Your task to perform on an android device: star an email in the gmail app Image 0: 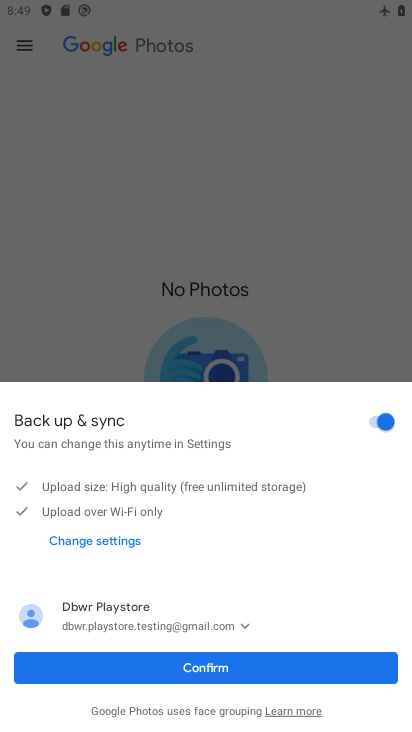
Step 0: press home button
Your task to perform on an android device: star an email in the gmail app Image 1: 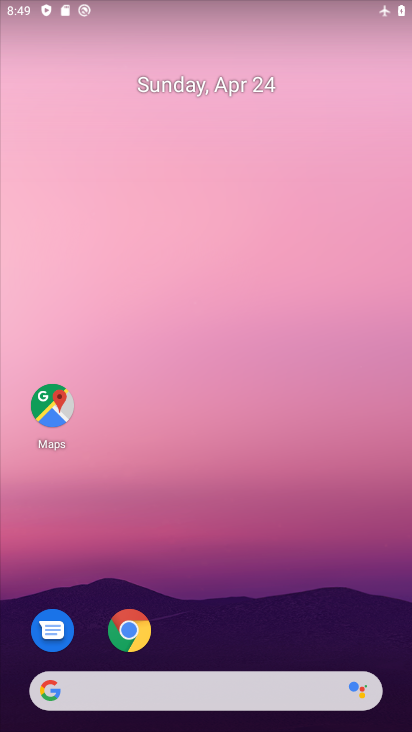
Step 1: drag from (179, 551) to (234, 185)
Your task to perform on an android device: star an email in the gmail app Image 2: 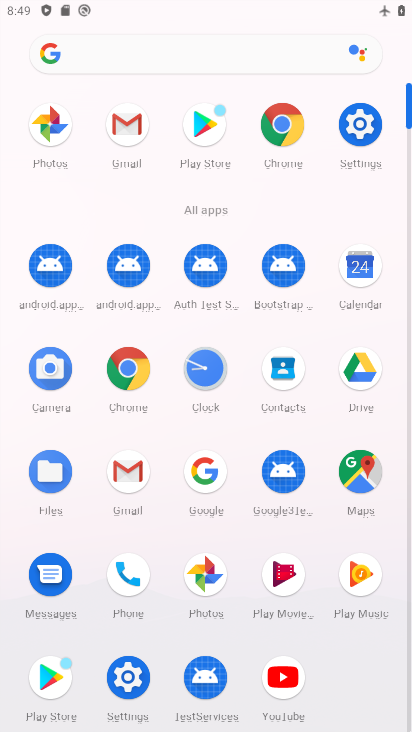
Step 2: click (124, 471)
Your task to perform on an android device: star an email in the gmail app Image 3: 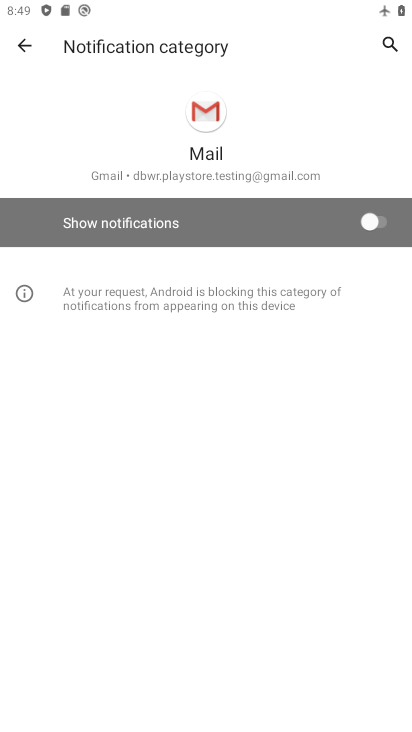
Step 3: click (24, 48)
Your task to perform on an android device: star an email in the gmail app Image 4: 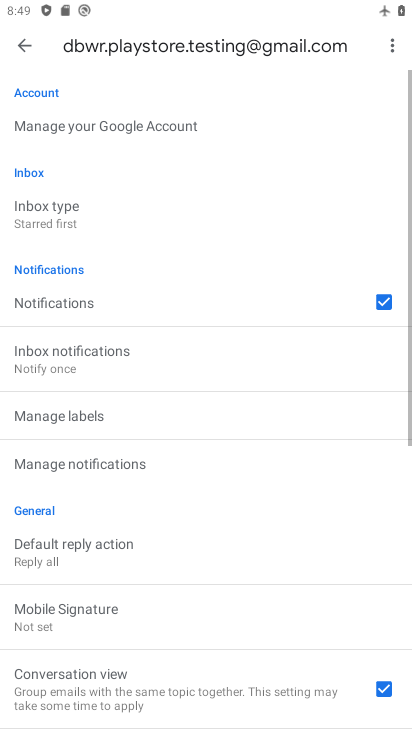
Step 4: click (24, 48)
Your task to perform on an android device: star an email in the gmail app Image 5: 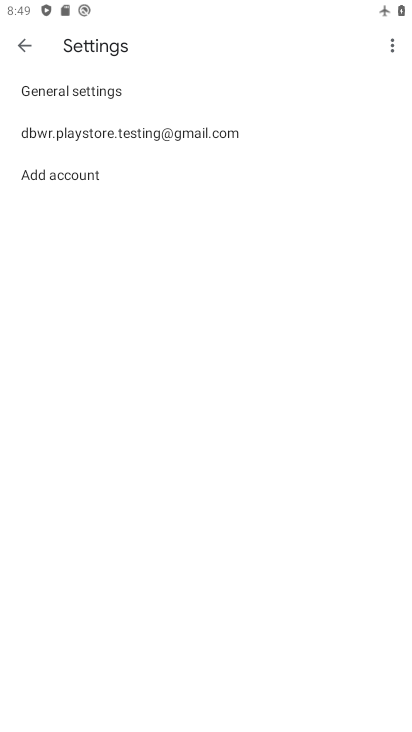
Step 5: click (24, 48)
Your task to perform on an android device: star an email in the gmail app Image 6: 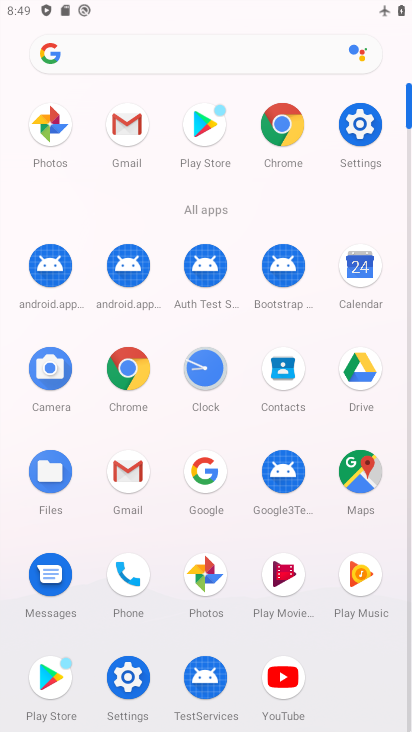
Step 6: click (128, 126)
Your task to perform on an android device: star an email in the gmail app Image 7: 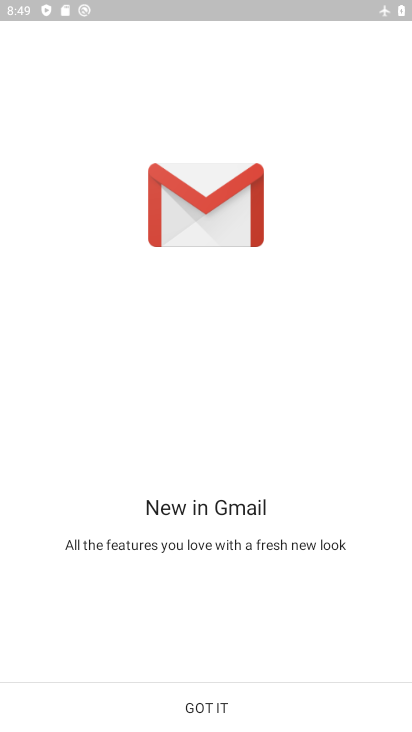
Step 7: click (223, 708)
Your task to perform on an android device: star an email in the gmail app Image 8: 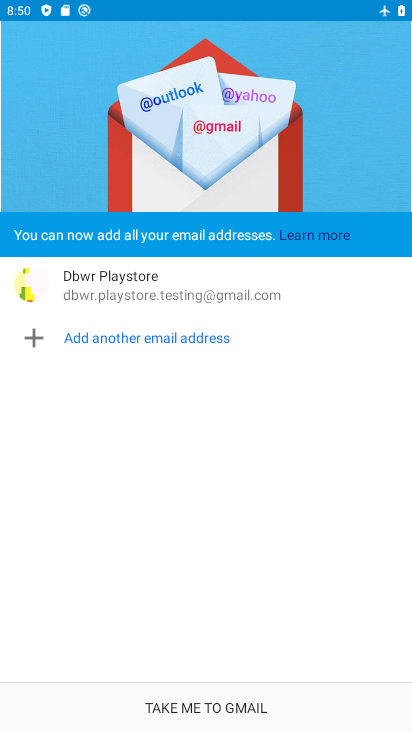
Step 8: click (208, 705)
Your task to perform on an android device: star an email in the gmail app Image 9: 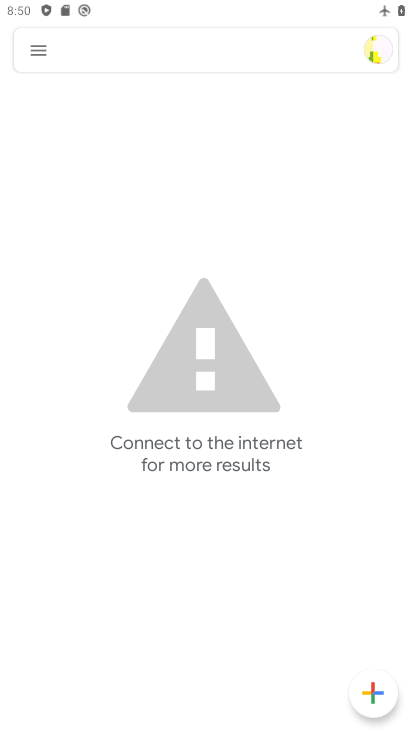
Step 9: click (41, 51)
Your task to perform on an android device: star an email in the gmail app Image 10: 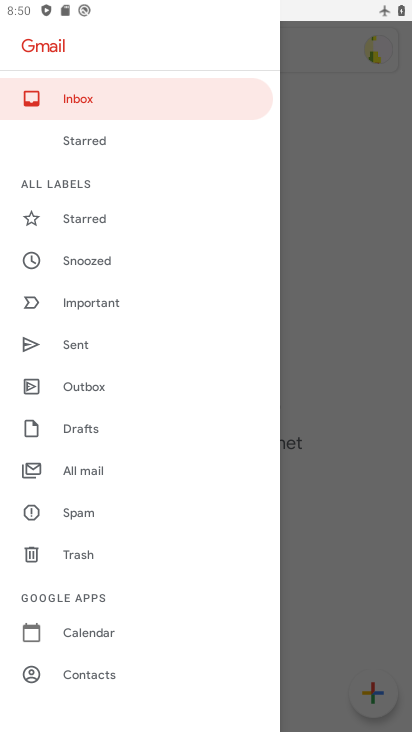
Step 10: click (110, 473)
Your task to perform on an android device: star an email in the gmail app Image 11: 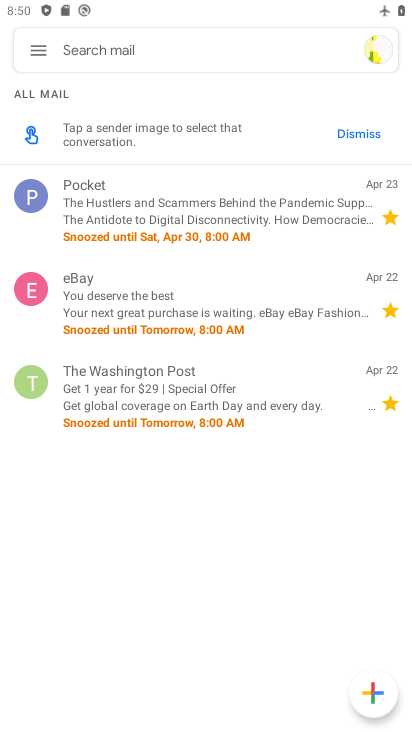
Step 11: task complete